Your task to perform on an android device: set the timer Image 0: 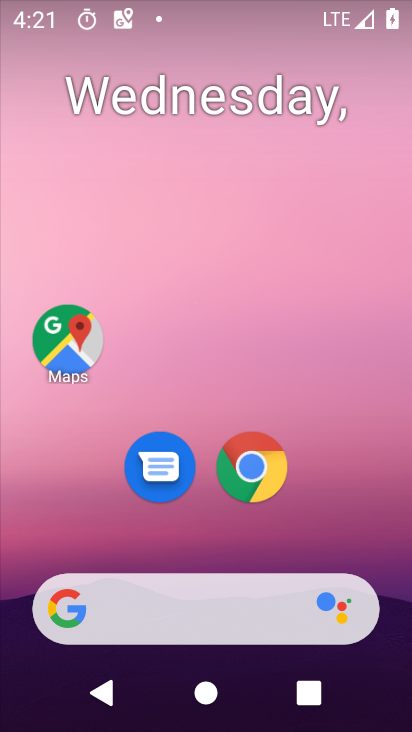
Step 0: drag from (334, 522) to (136, 5)
Your task to perform on an android device: set the timer Image 1: 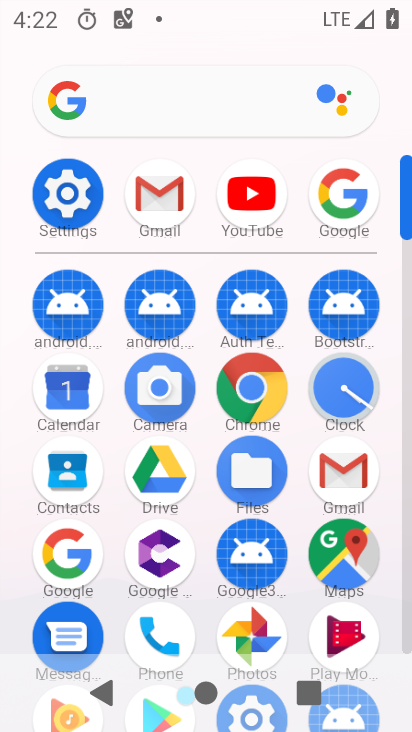
Step 1: click (340, 398)
Your task to perform on an android device: set the timer Image 2: 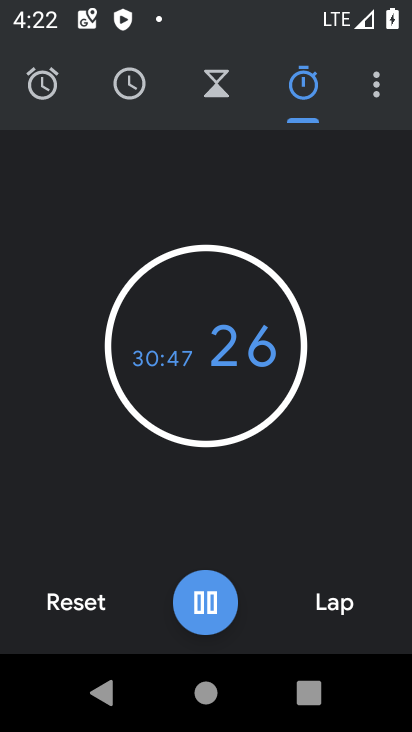
Step 2: click (81, 604)
Your task to perform on an android device: set the timer Image 3: 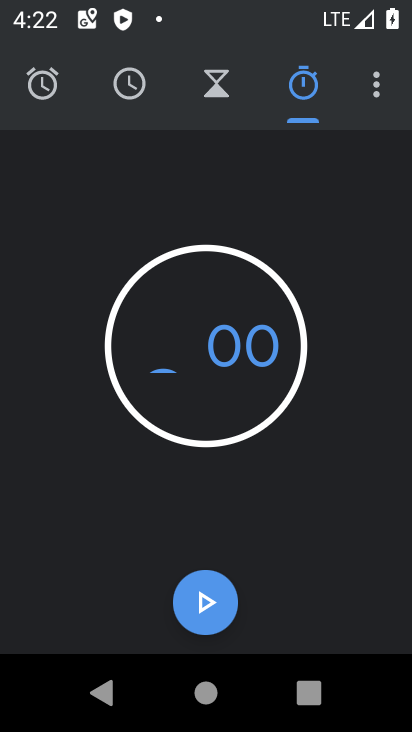
Step 3: click (203, 599)
Your task to perform on an android device: set the timer Image 4: 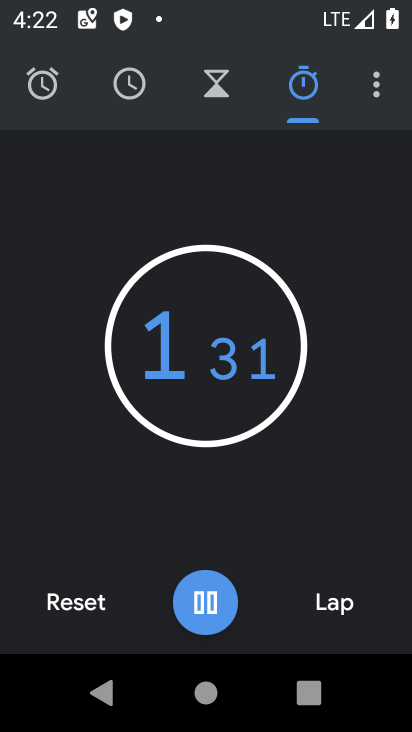
Step 4: task complete